Your task to perform on an android device: Open Google Maps Image 0: 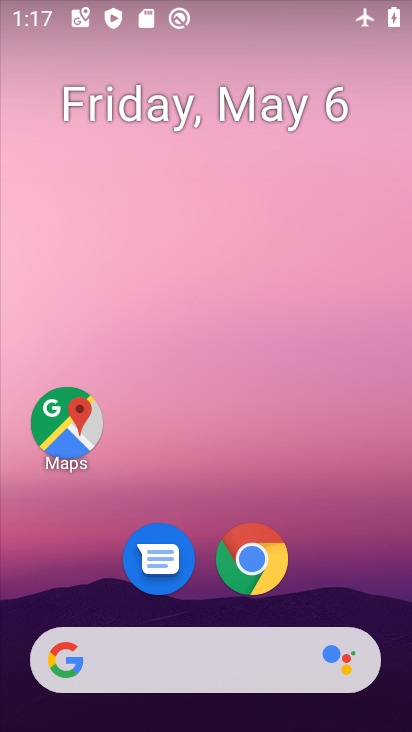
Step 0: click (60, 436)
Your task to perform on an android device: Open Google Maps Image 1: 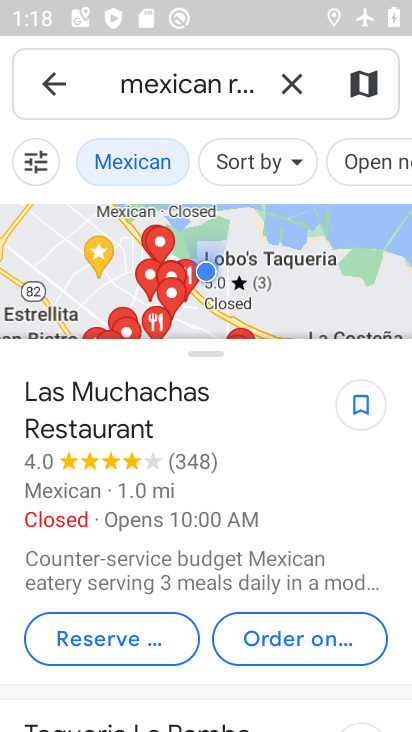
Step 1: task complete